Your task to perform on an android device: change your default location settings in chrome Image 0: 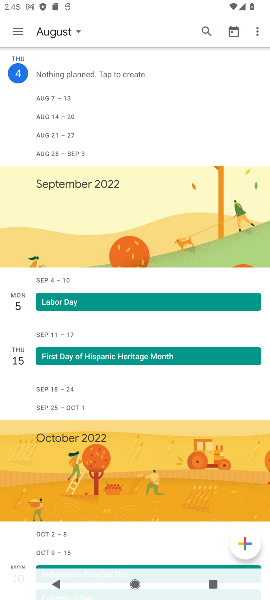
Step 0: press home button
Your task to perform on an android device: change your default location settings in chrome Image 1: 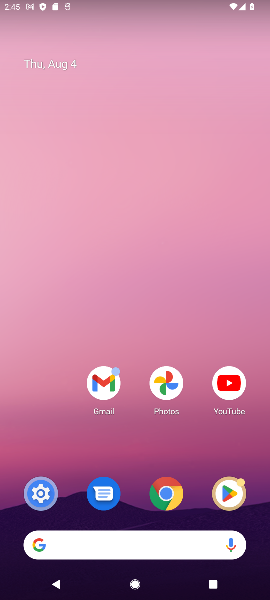
Step 1: click (165, 482)
Your task to perform on an android device: change your default location settings in chrome Image 2: 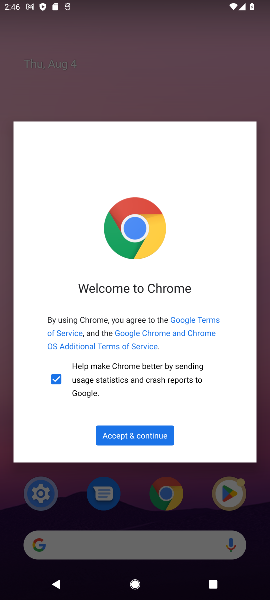
Step 2: click (133, 436)
Your task to perform on an android device: change your default location settings in chrome Image 3: 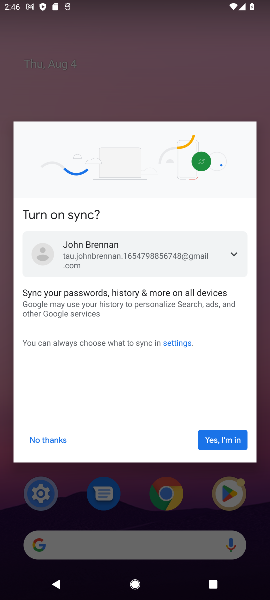
Step 3: click (215, 449)
Your task to perform on an android device: change your default location settings in chrome Image 4: 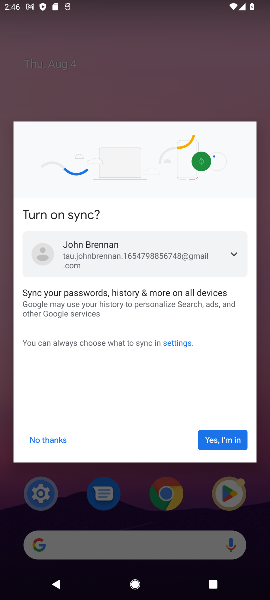
Step 4: click (223, 440)
Your task to perform on an android device: change your default location settings in chrome Image 5: 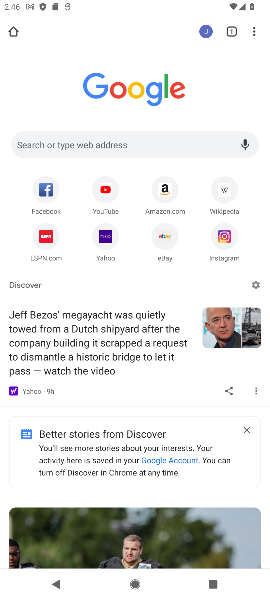
Step 5: click (255, 32)
Your task to perform on an android device: change your default location settings in chrome Image 6: 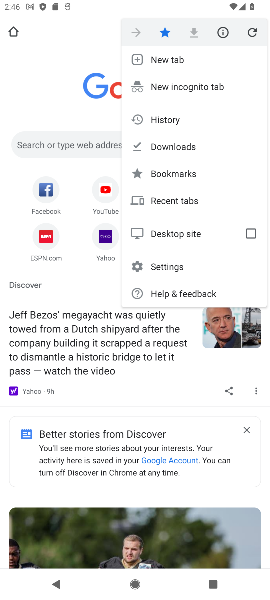
Step 6: click (160, 265)
Your task to perform on an android device: change your default location settings in chrome Image 7: 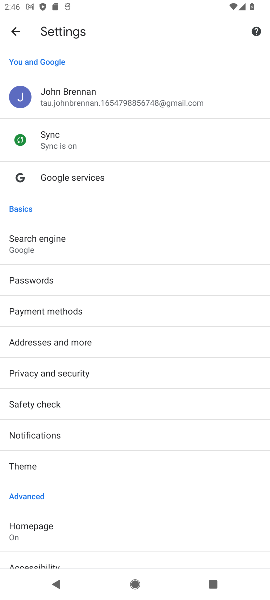
Step 7: drag from (93, 512) to (145, 195)
Your task to perform on an android device: change your default location settings in chrome Image 8: 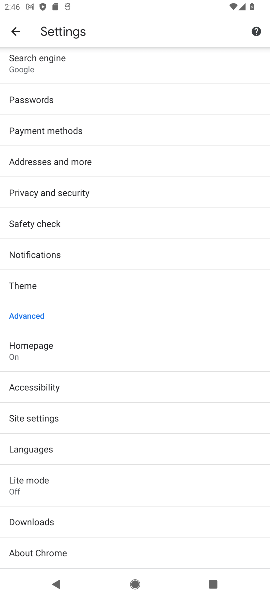
Step 8: drag from (120, 154) to (137, 598)
Your task to perform on an android device: change your default location settings in chrome Image 9: 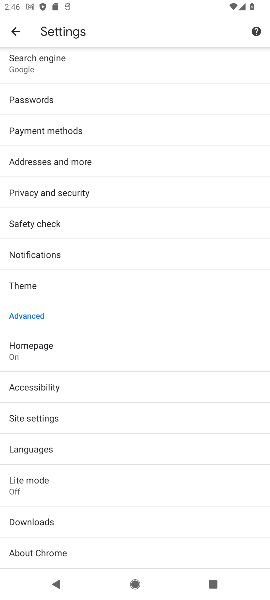
Step 9: click (44, 414)
Your task to perform on an android device: change your default location settings in chrome Image 10: 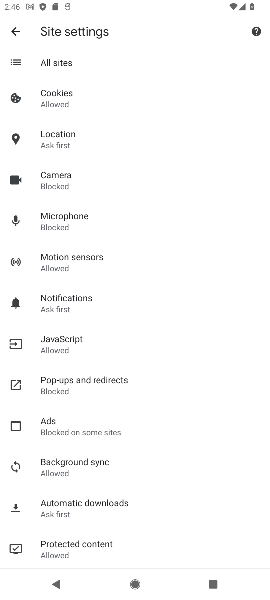
Step 10: click (75, 138)
Your task to perform on an android device: change your default location settings in chrome Image 11: 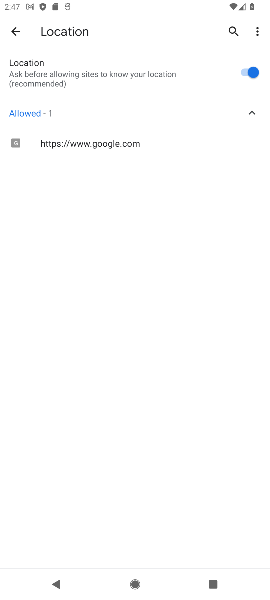
Step 11: task complete